Your task to perform on an android device: Open the calendar and show me this week's events? Image 0: 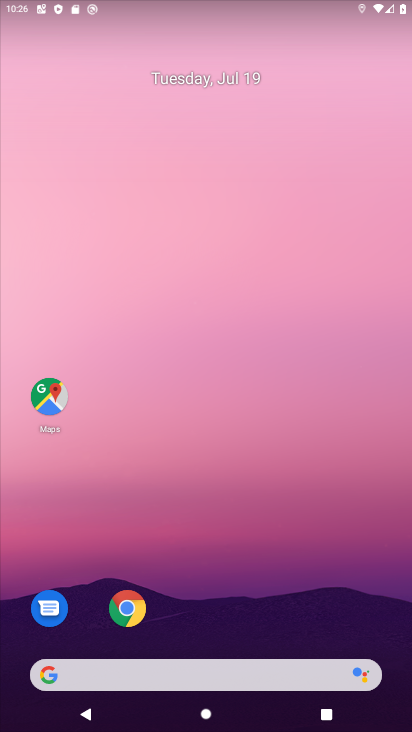
Step 0: drag from (177, 628) to (175, 83)
Your task to perform on an android device: Open the calendar and show me this week's events? Image 1: 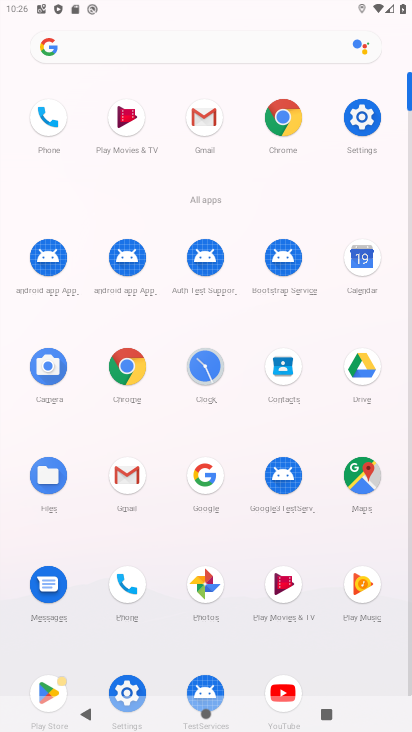
Step 1: click (354, 272)
Your task to perform on an android device: Open the calendar and show me this week's events? Image 2: 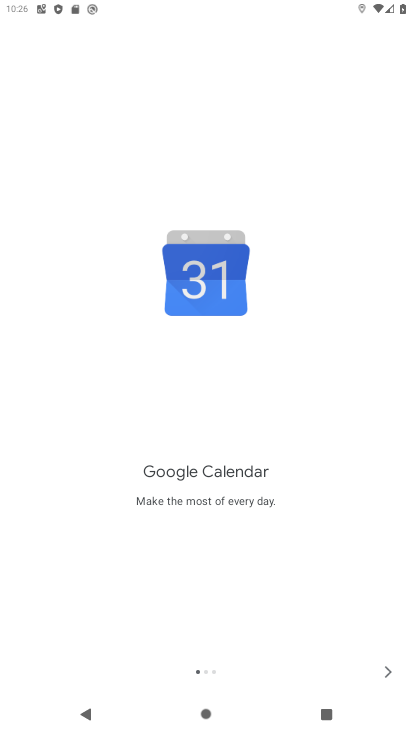
Step 2: click (387, 672)
Your task to perform on an android device: Open the calendar and show me this week's events? Image 3: 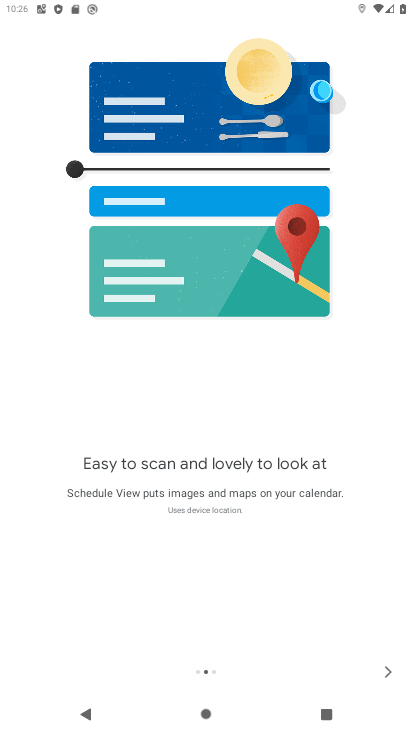
Step 3: click (387, 672)
Your task to perform on an android device: Open the calendar and show me this week's events? Image 4: 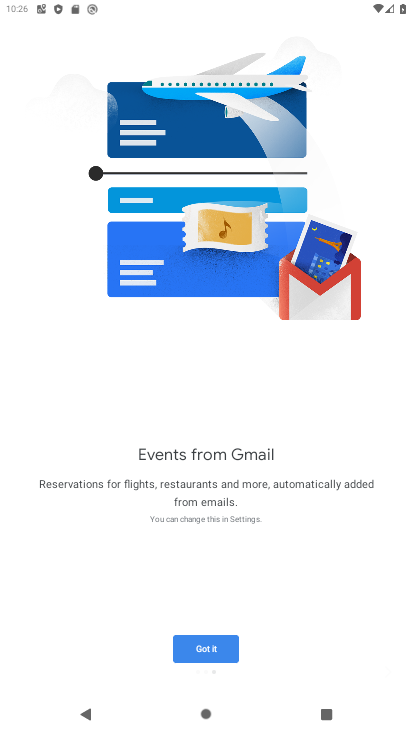
Step 4: click (387, 672)
Your task to perform on an android device: Open the calendar and show me this week's events? Image 5: 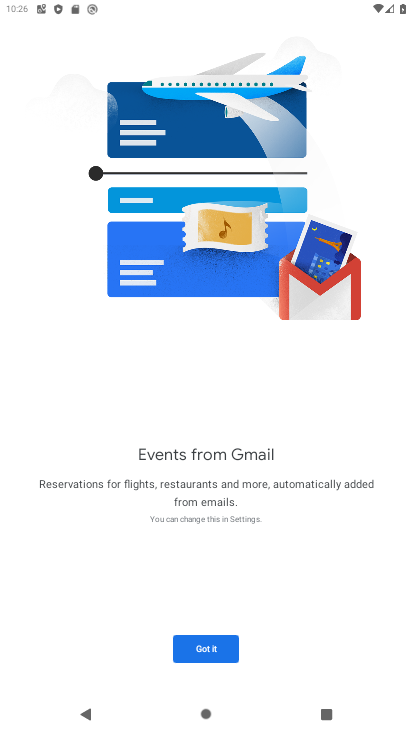
Step 5: click (221, 654)
Your task to perform on an android device: Open the calendar and show me this week's events? Image 6: 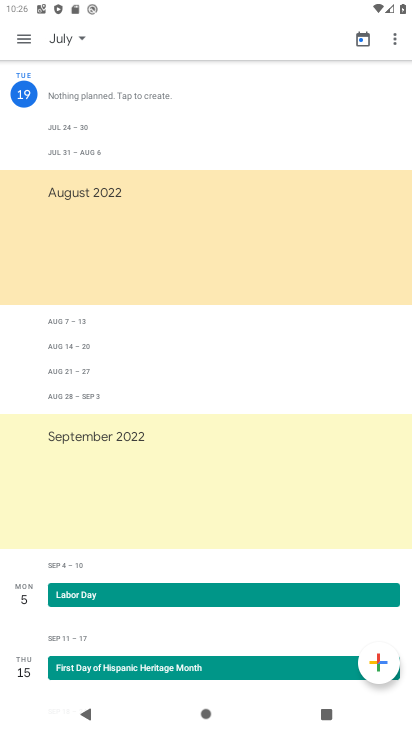
Step 6: click (26, 38)
Your task to perform on an android device: Open the calendar and show me this week's events? Image 7: 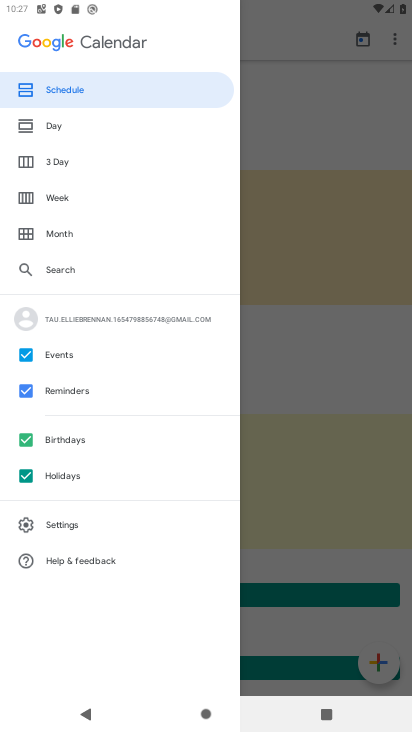
Step 7: click (61, 196)
Your task to perform on an android device: Open the calendar and show me this week's events? Image 8: 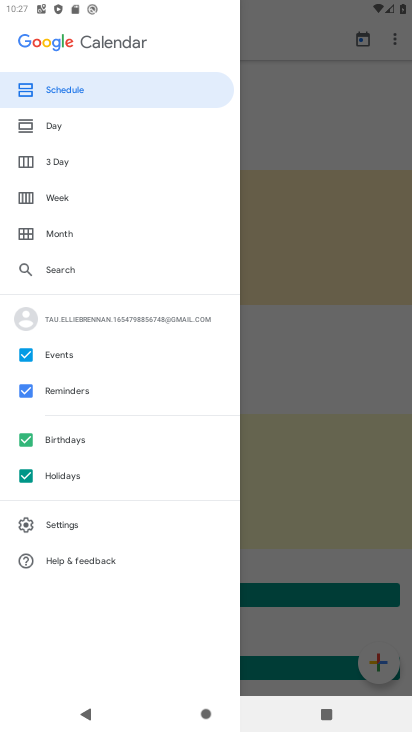
Step 8: click (61, 196)
Your task to perform on an android device: Open the calendar and show me this week's events? Image 9: 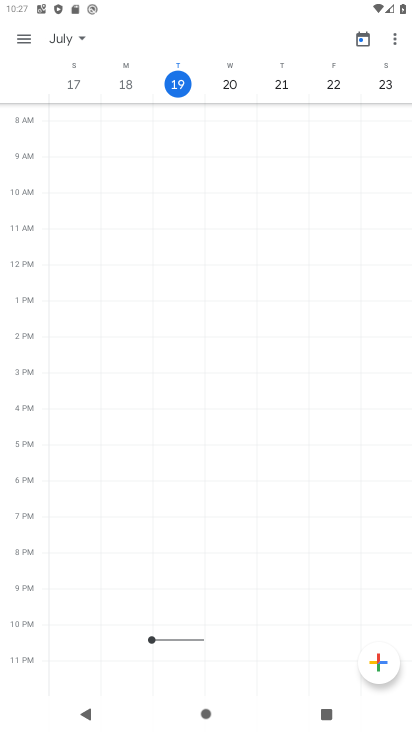
Step 9: task complete